Your task to perform on an android device: What is the news today? Image 0: 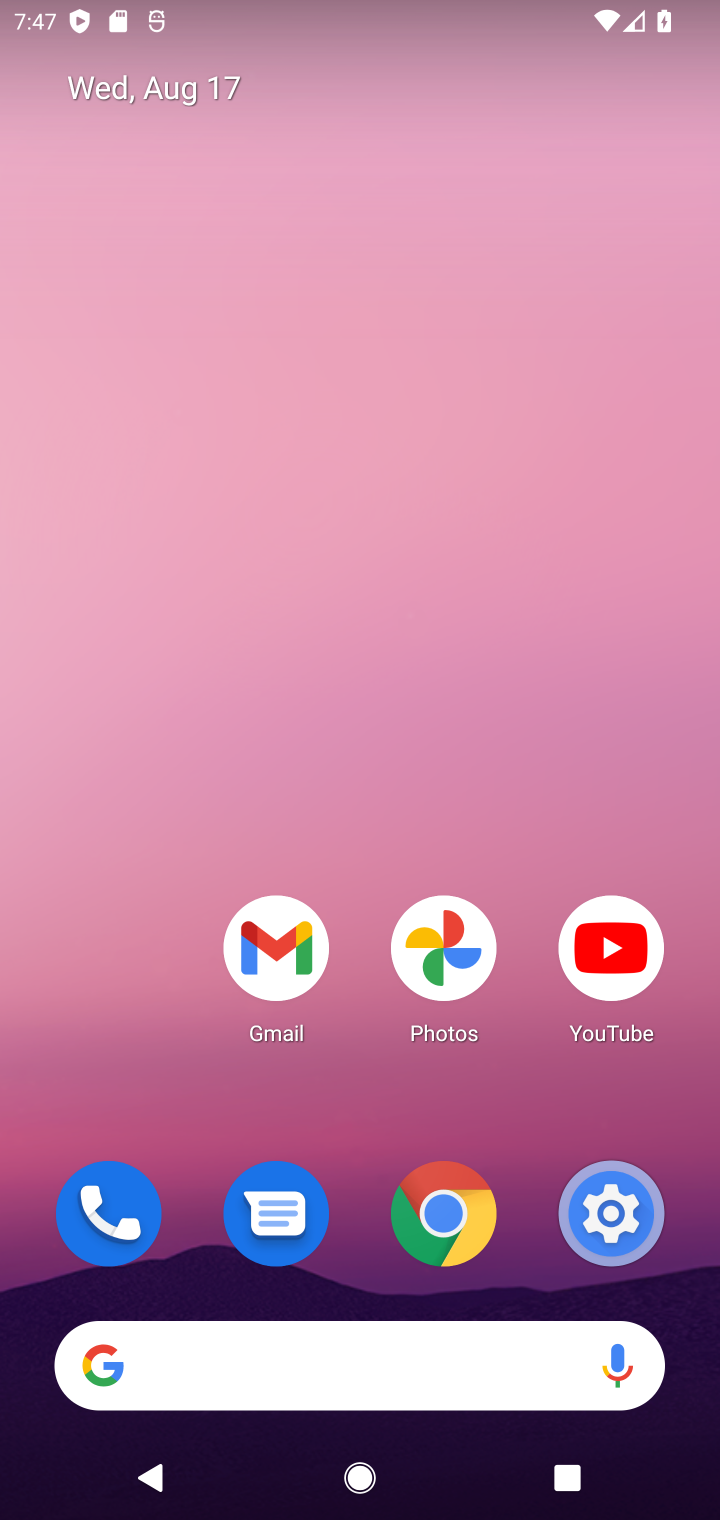
Step 0: click (395, 1342)
Your task to perform on an android device: What is the news today? Image 1: 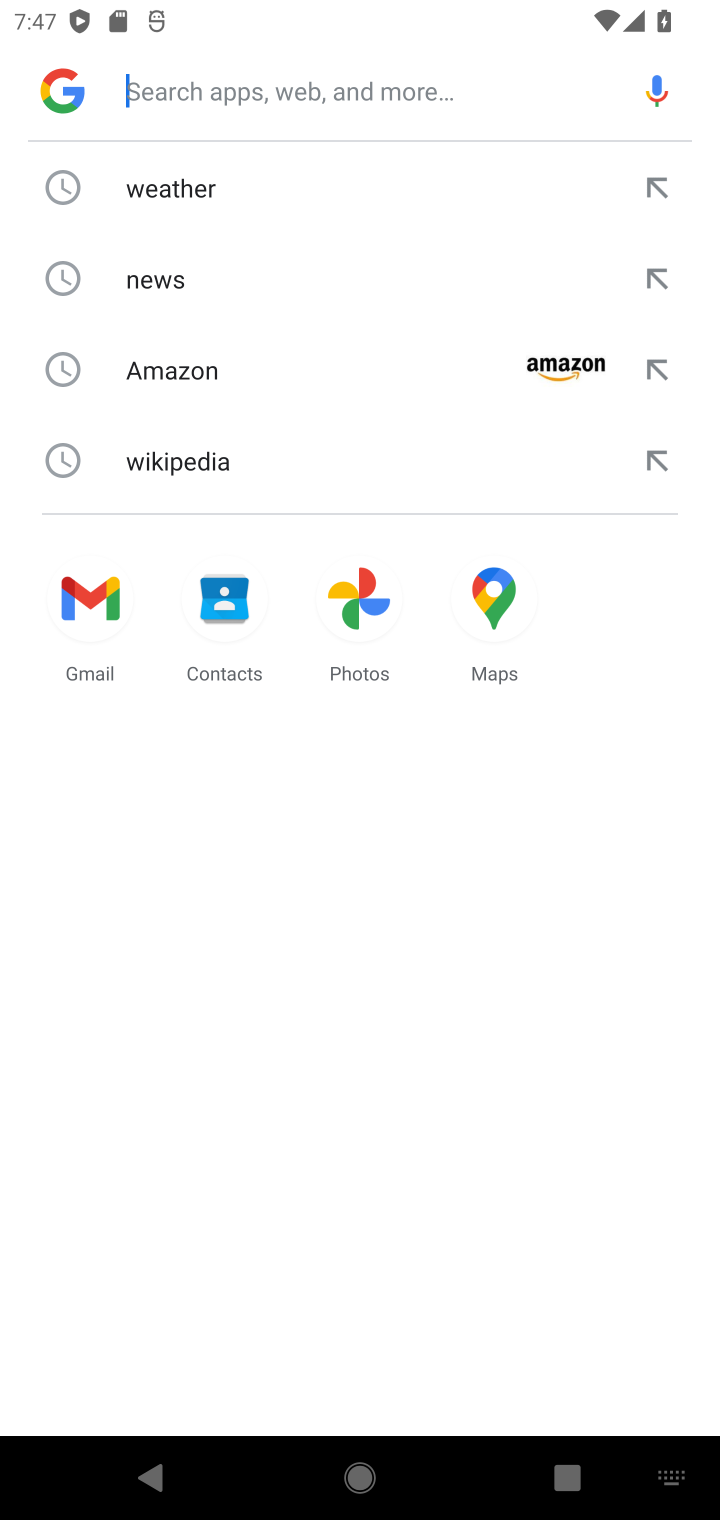
Step 1: click (245, 287)
Your task to perform on an android device: What is the news today? Image 2: 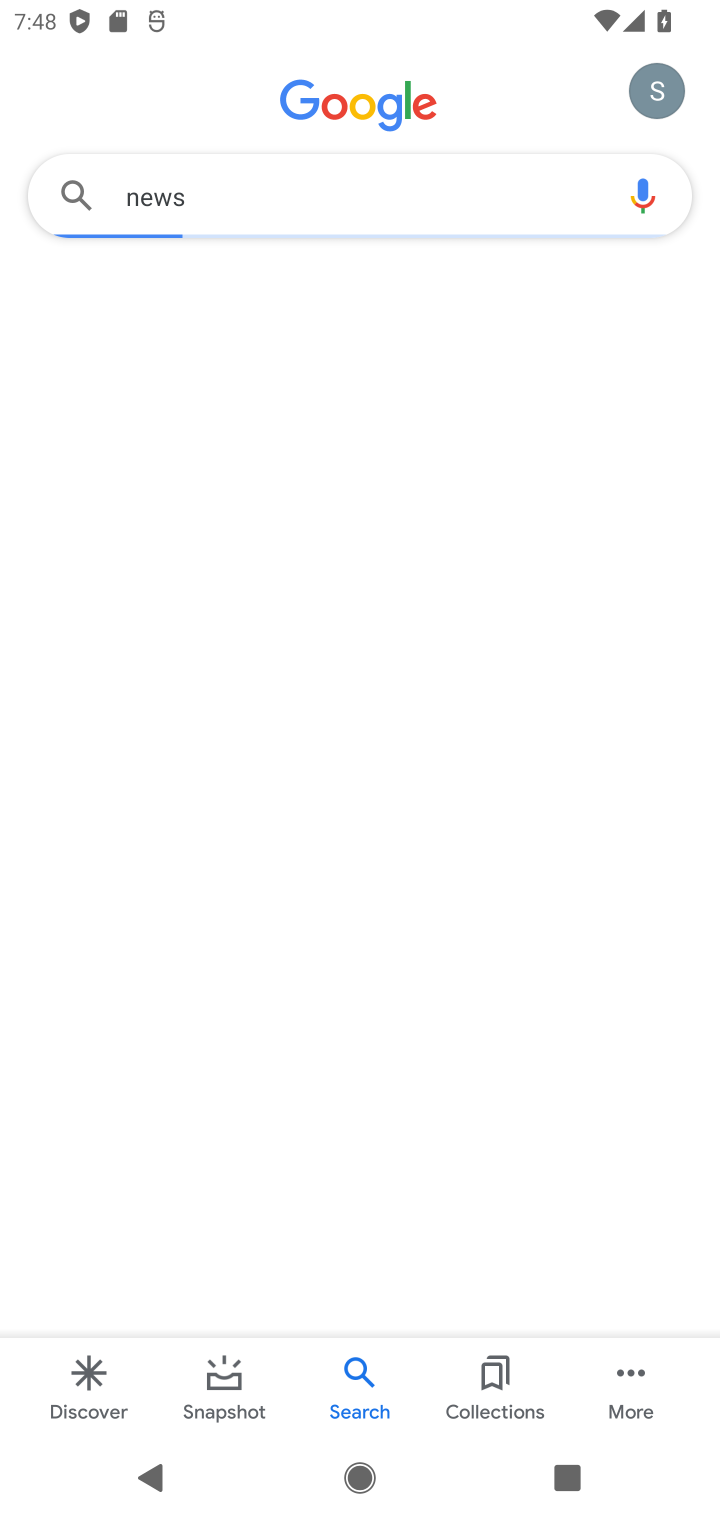
Step 2: task complete